Your task to perform on an android device: turn on improve location accuracy Image 0: 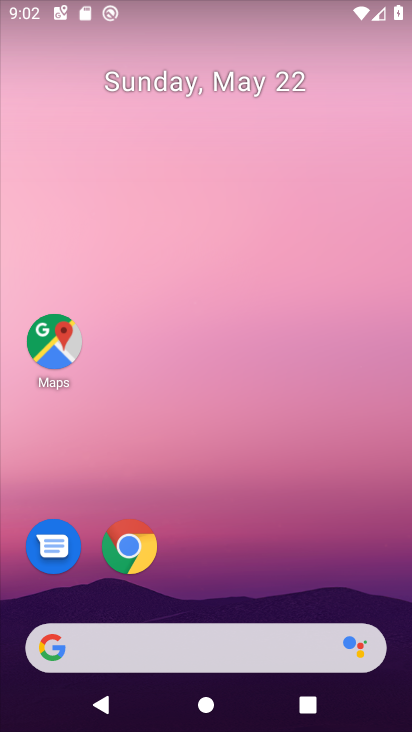
Step 0: drag from (374, 556) to (369, 180)
Your task to perform on an android device: turn on improve location accuracy Image 1: 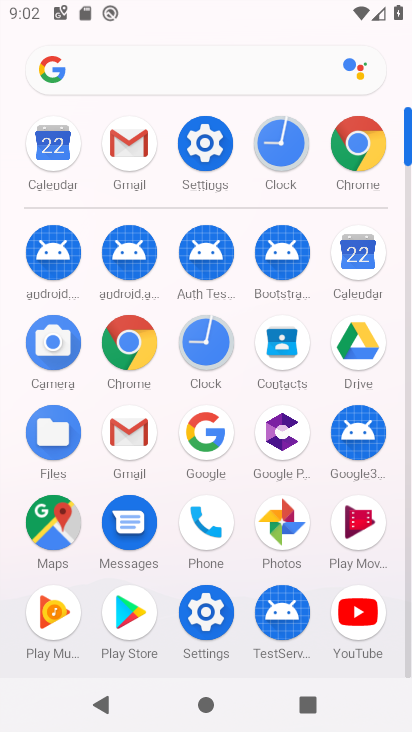
Step 1: click (274, 505)
Your task to perform on an android device: turn on improve location accuracy Image 2: 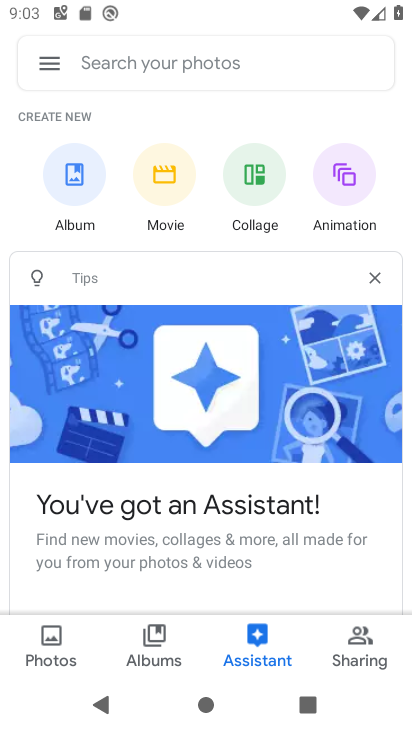
Step 2: click (51, 647)
Your task to perform on an android device: turn on improve location accuracy Image 3: 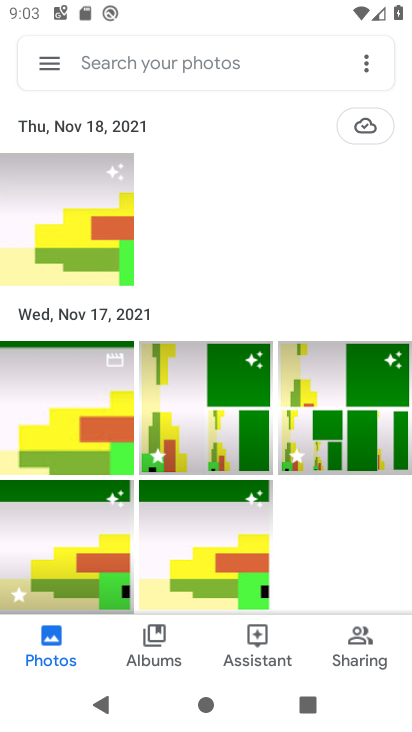
Step 3: click (89, 240)
Your task to perform on an android device: turn on improve location accuracy Image 4: 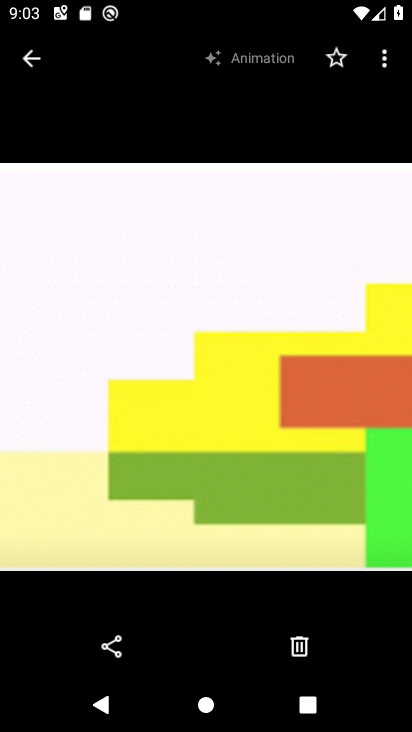
Step 4: task complete